Your task to perform on an android device: See recent photos Image 0: 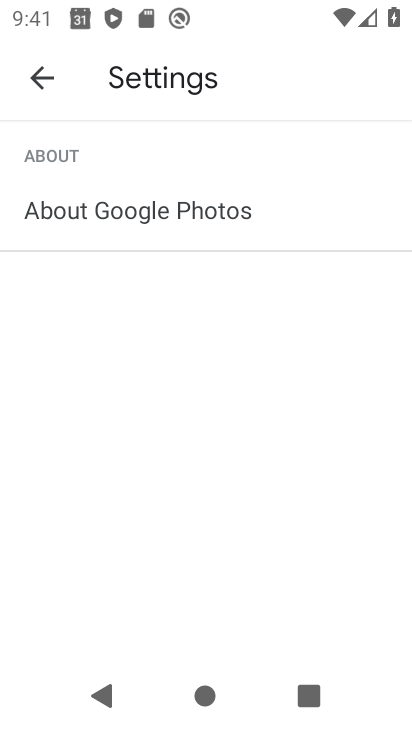
Step 0: press home button
Your task to perform on an android device: See recent photos Image 1: 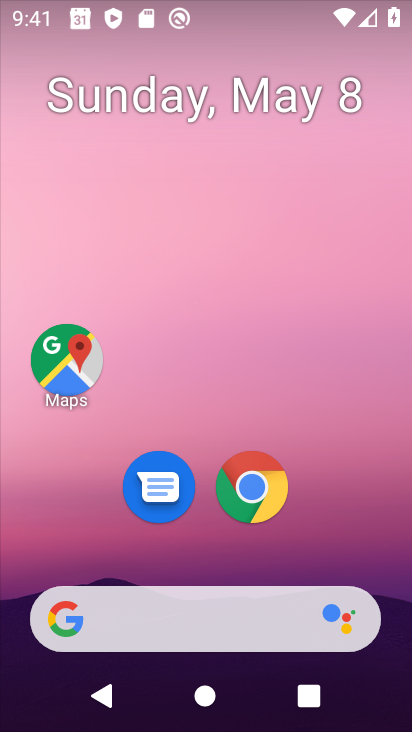
Step 1: drag from (332, 528) to (332, 51)
Your task to perform on an android device: See recent photos Image 2: 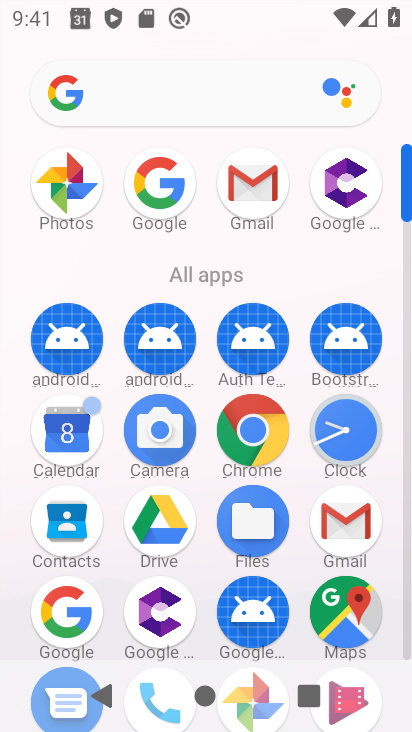
Step 2: click (82, 180)
Your task to perform on an android device: See recent photos Image 3: 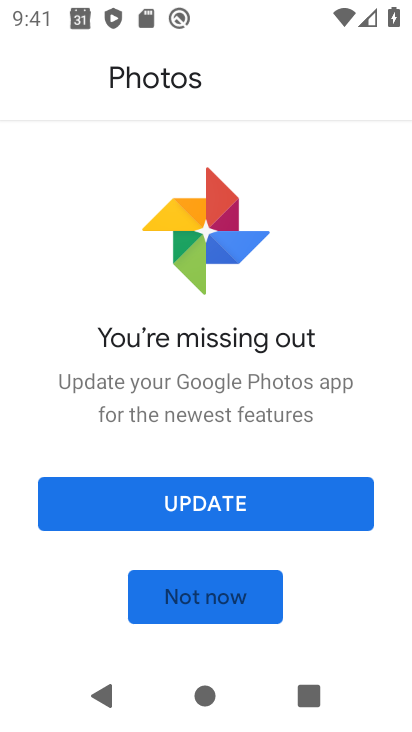
Step 3: click (197, 507)
Your task to perform on an android device: See recent photos Image 4: 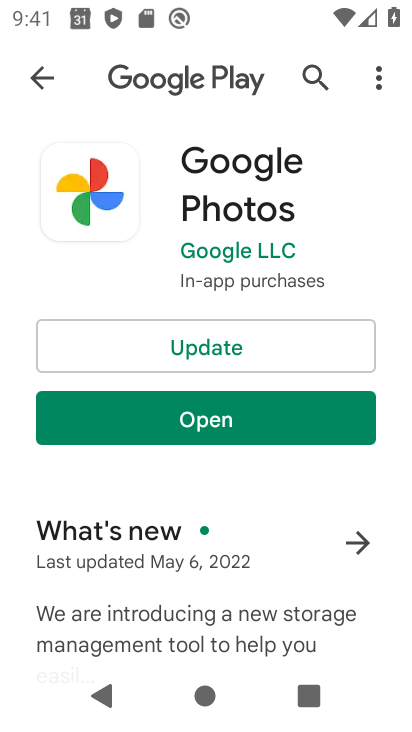
Step 4: click (231, 347)
Your task to perform on an android device: See recent photos Image 5: 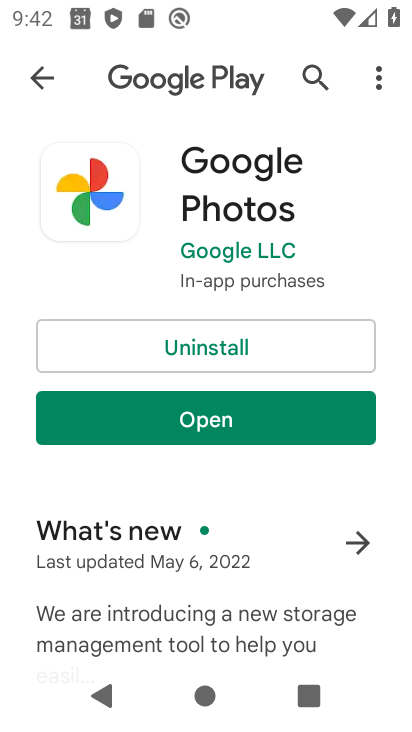
Step 5: click (217, 408)
Your task to perform on an android device: See recent photos Image 6: 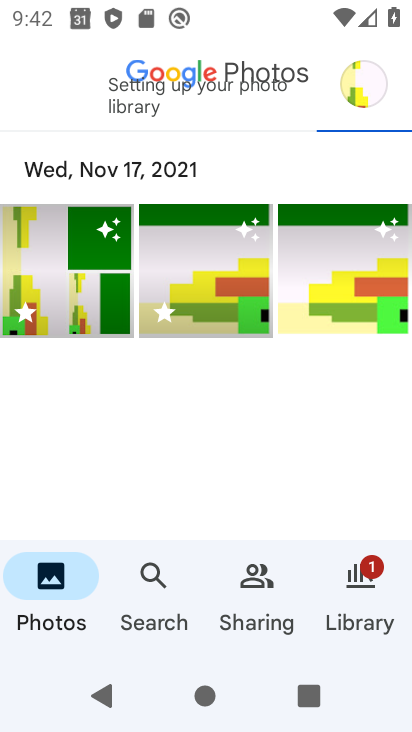
Step 6: click (63, 294)
Your task to perform on an android device: See recent photos Image 7: 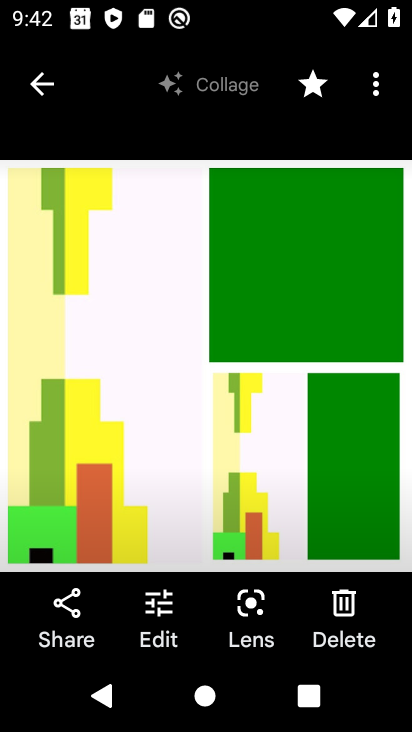
Step 7: task complete